Your task to perform on an android device: Open Amazon Image 0: 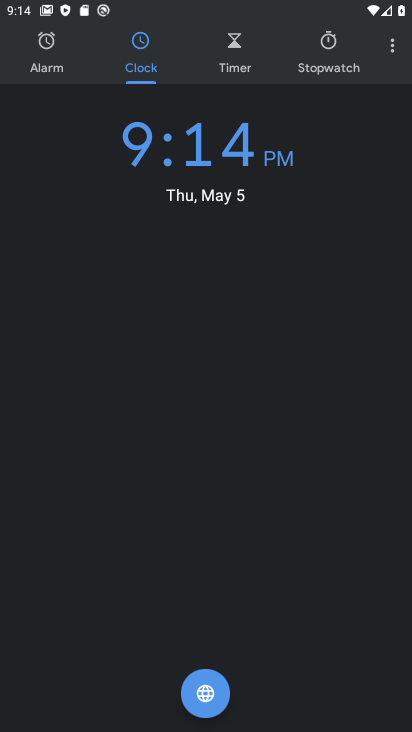
Step 0: press home button
Your task to perform on an android device: Open Amazon Image 1: 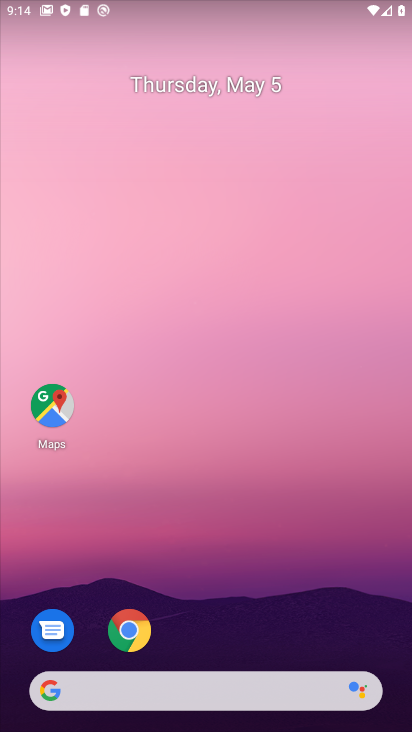
Step 1: click (132, 638)
Your task to perform on an android device: Open Amazon Image 2: 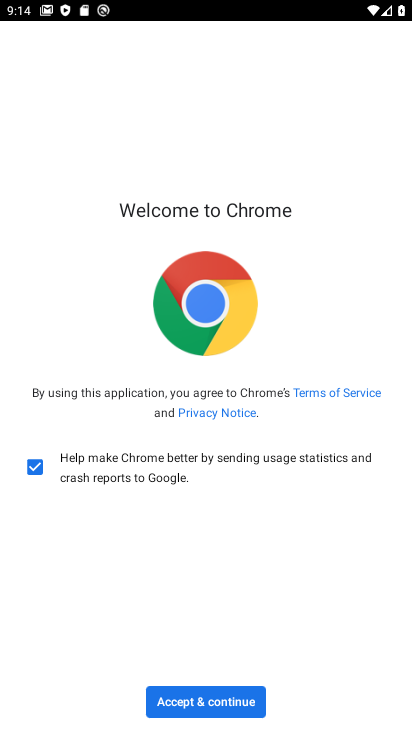
Step 2: click (234, 714)
Your task to perform on an android device: Open Amazon Image 3: 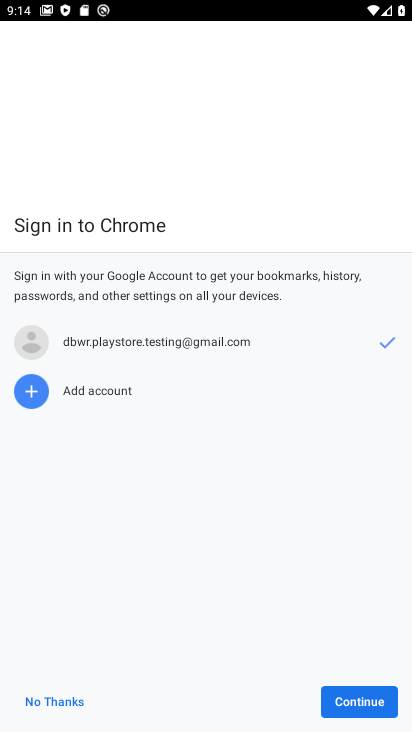
Step 3: click (337, 710)
Your task to perform on an android device: Open Amazon Image 4: 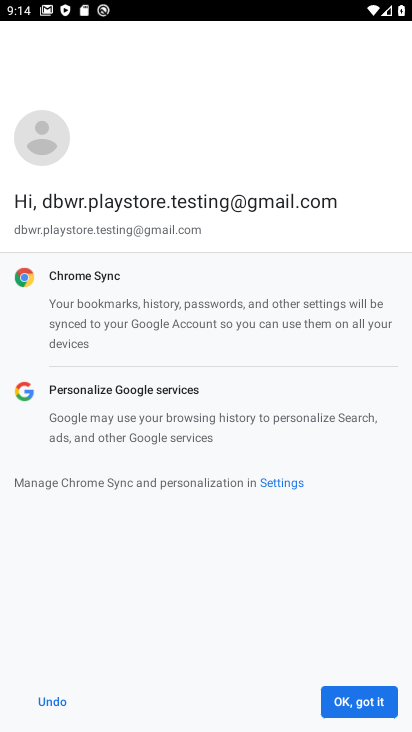
Step 4: click (337, 710)
Your task to perform on an android device: Open Amazon Image 5: 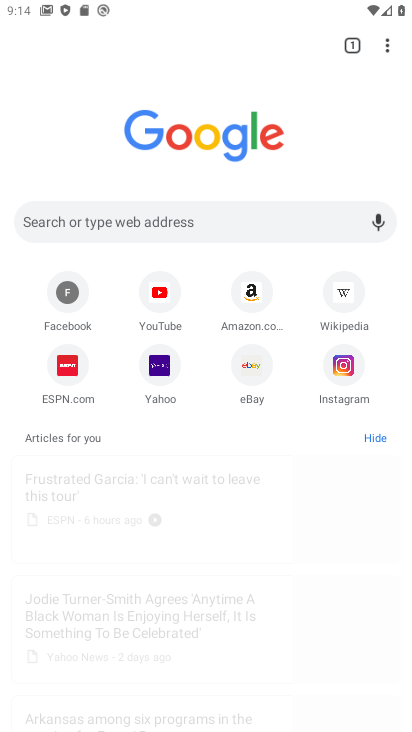
Step 5: click (257, 317)
Your task to perform on an android device: Open Amazon Image 6: 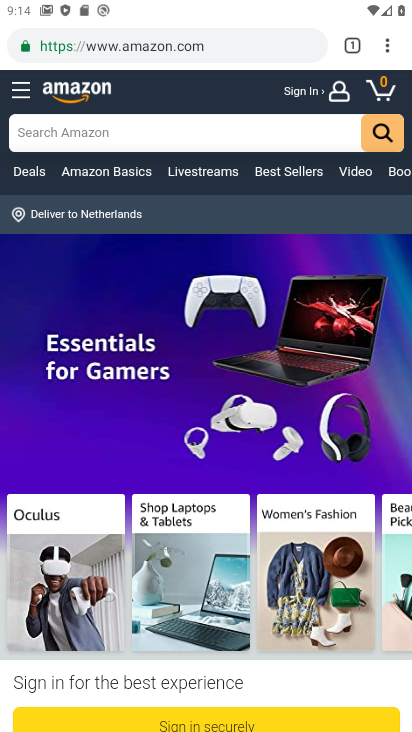
Step 6: task complete